Your task to perform on an android device: toggle priority inbox in the gmail app Image 0: 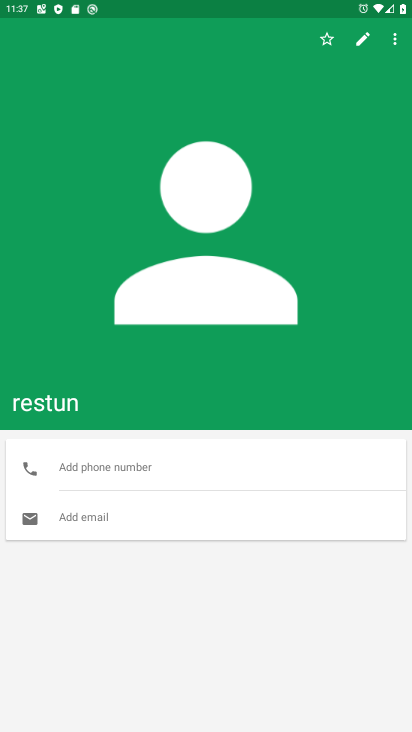
Step 0: press home button
Your task to perform on an android device: toggle priority inbox in the gmail app Image 1: 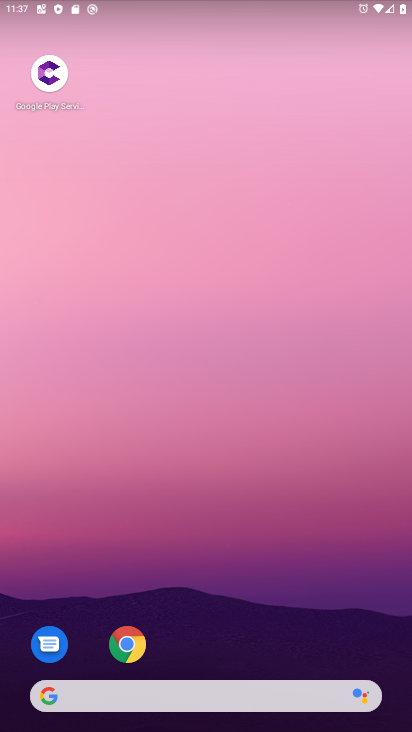
Step 1: drag from (294, 626) to (272, 101)
Your task to perform on an android device: toggle priority inbox in the gmail app Image 2: 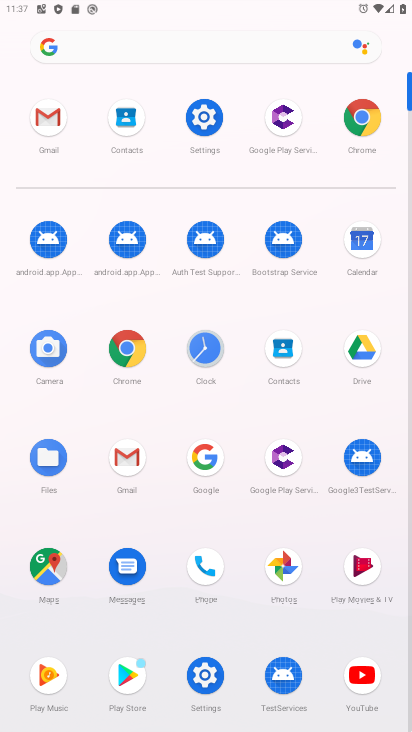
Step 2: click (60, 122)
Your task to perform on an android device: toggle priority inbox in the gmail app Image 3: 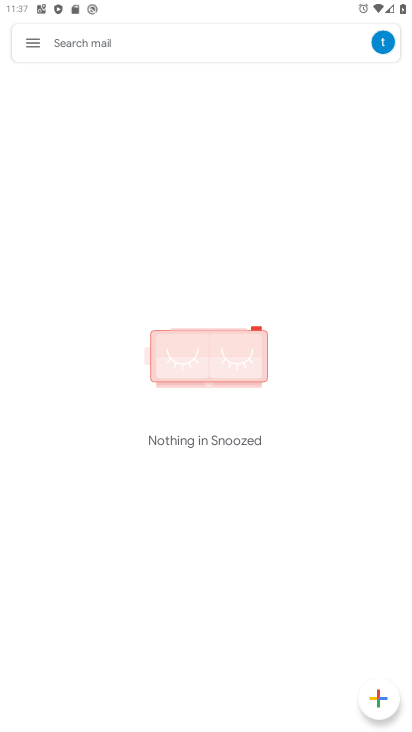
Step 3: click (34, 41)
Your task to perform on an android device: toggle priority inbox in the gmail app Image 4: 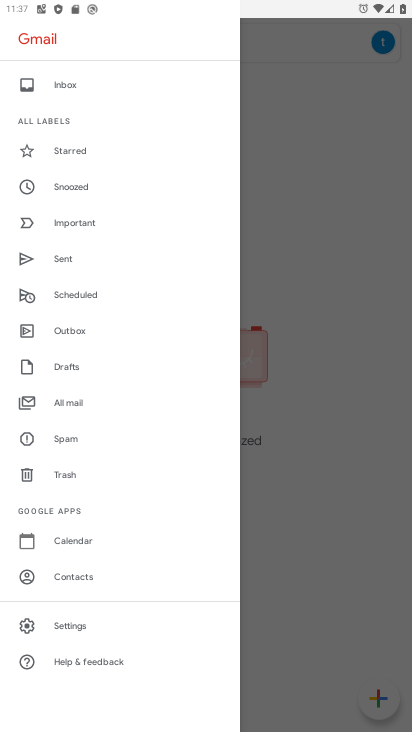
Step 4: click (83, 633)
Your task to perform on an android device: toggle priority inbox in the gmail app Image 5: 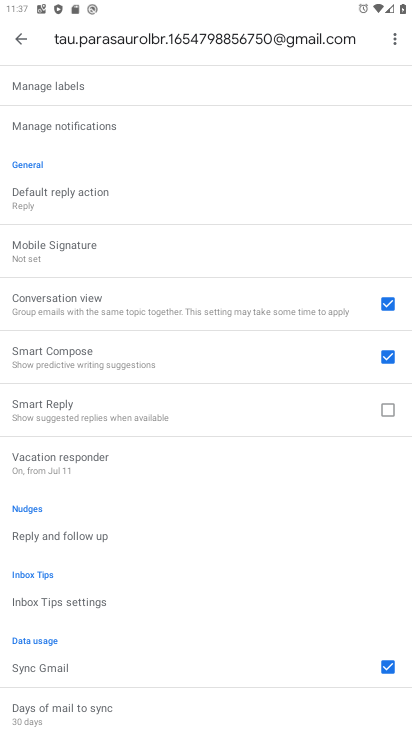
Step 5: drag from (142, 141) to (154, 642)
Your task to perform on an android device: toggle priority inbox in the gmail app Image 6: 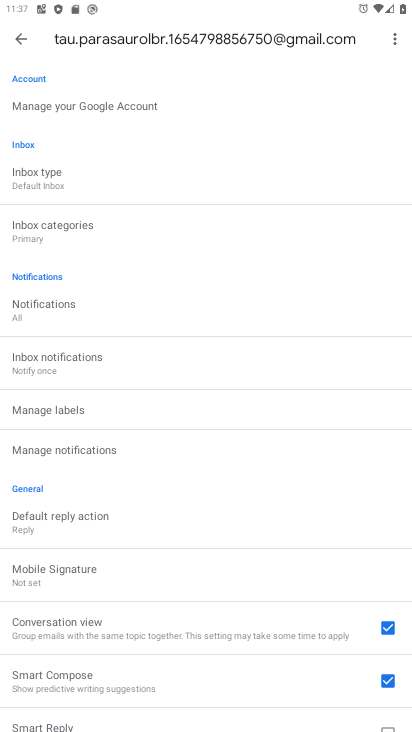
Step 6: drag from (145, 176) to (160, 502)
Your task to perform on an android device: toggle priority inbox in the gmail app Image 7: 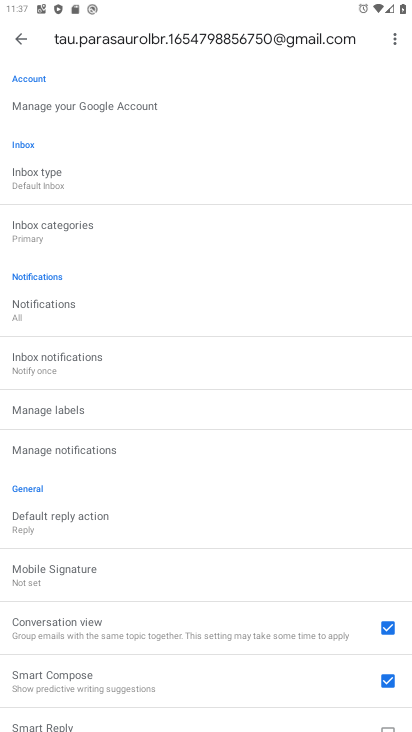
Step 7: click (57, 175)
Your task to perform on an android device: toggle priority inbox in the gmail app Image 8: 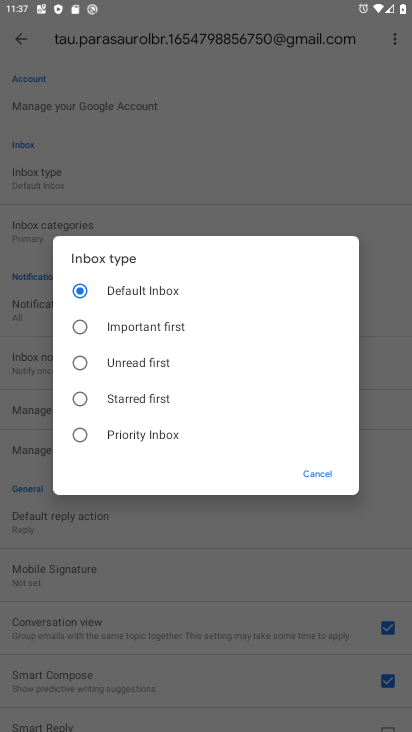
Step 8: click (140, 440)
Your task to perform on an android device: toggle priority inbox in the gmail app Image 9: 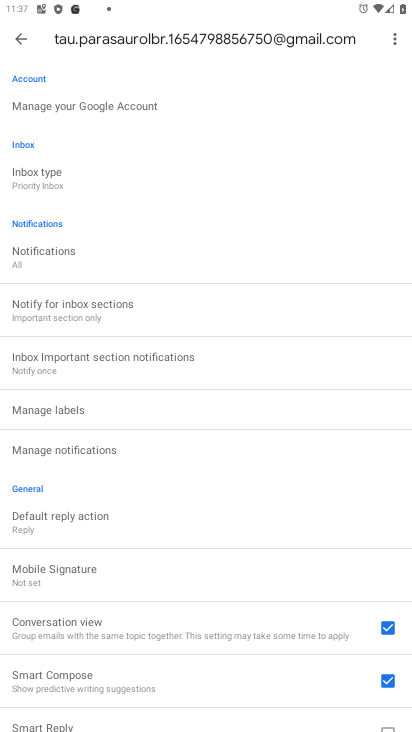
Step 9: task complete